Your task to perform on an android device: open sync settings in chrome Image 0: 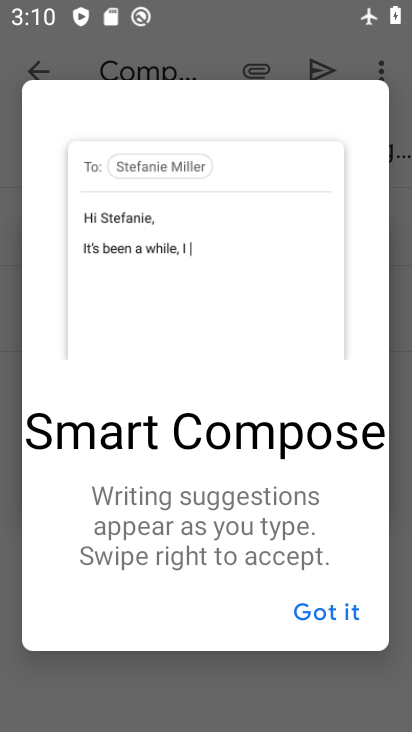
Step 0: press home button
Your task to perform on an android device: open sync settings in chrome Image 1: 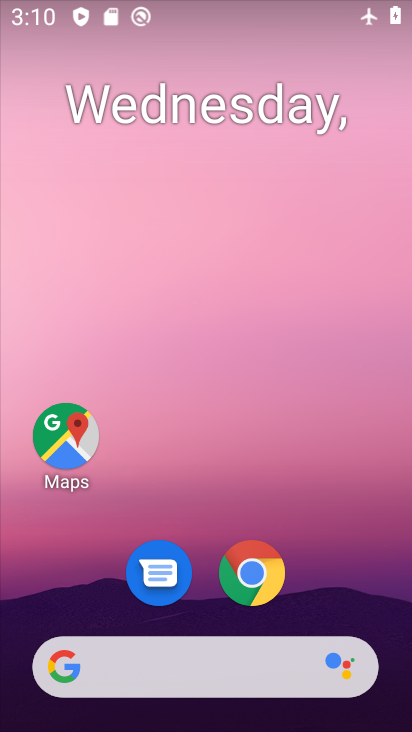
Step 1: drag from (189, 547) to (218, 299)
Your task to perform on an android device: open sync settings in chrome Image 2: 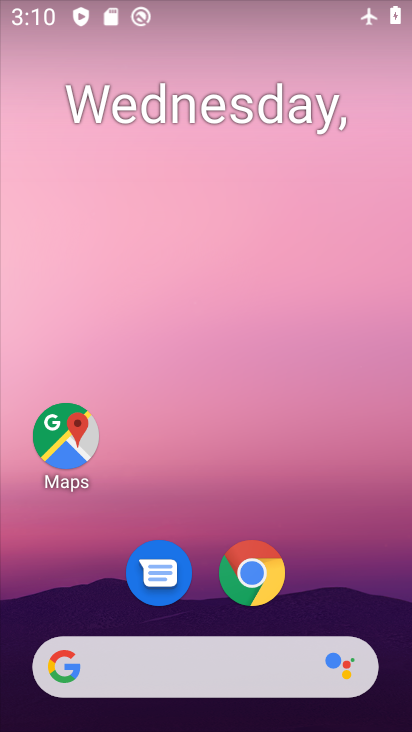
Step 2: drag from (174, 627) to (230, 287)
Your task to perform on an android device: open sync settings in chrome Image 3: 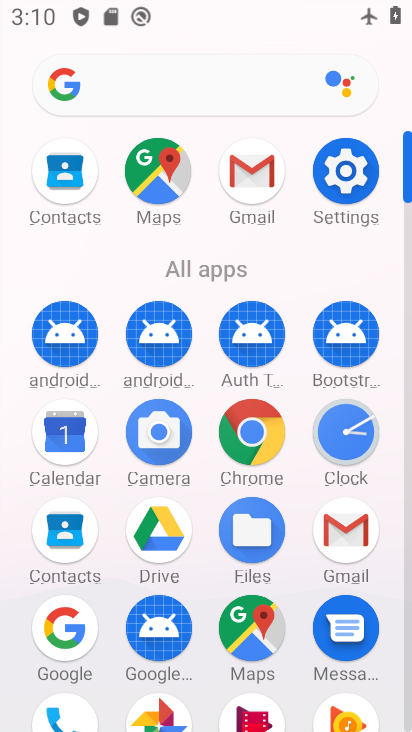
Step 3: click (235, 426)
Your task to perform on an android device: open sync settings in chrome Image 4: 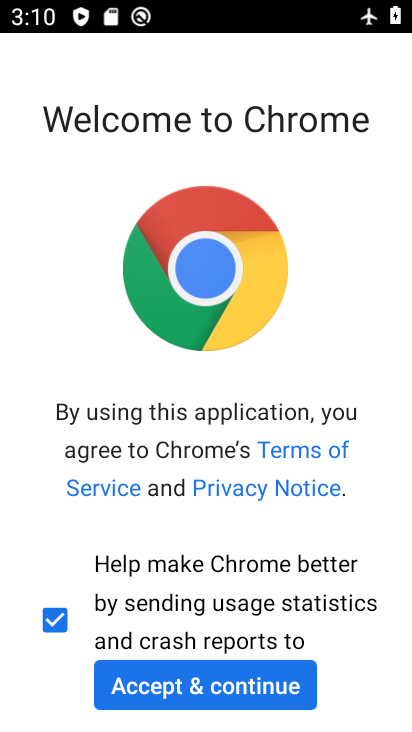
Step 4: click (254, 666)
Your task to perform on an android device: open sync settings in chrome Image 5: 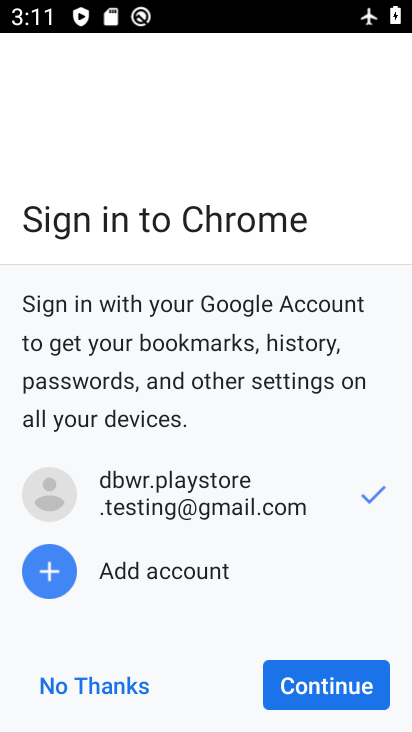
Step 5: click (281, 695)
Your task to perform on an android device: open sync settings in chrome Image 6: 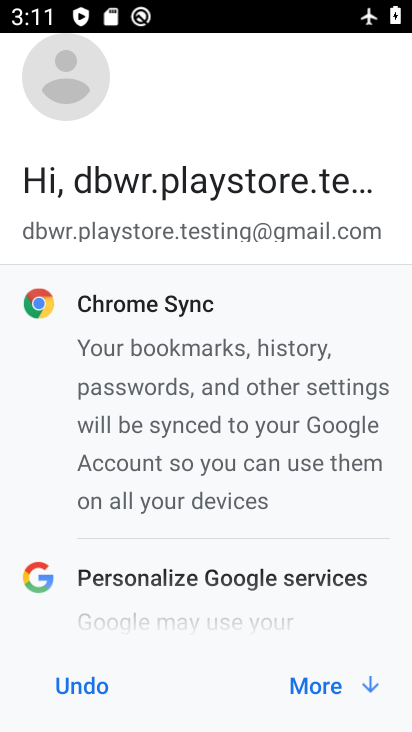
Step 6: click (281, 695)
Your task to perform on an android device: open sync settings in chrome Image 7: 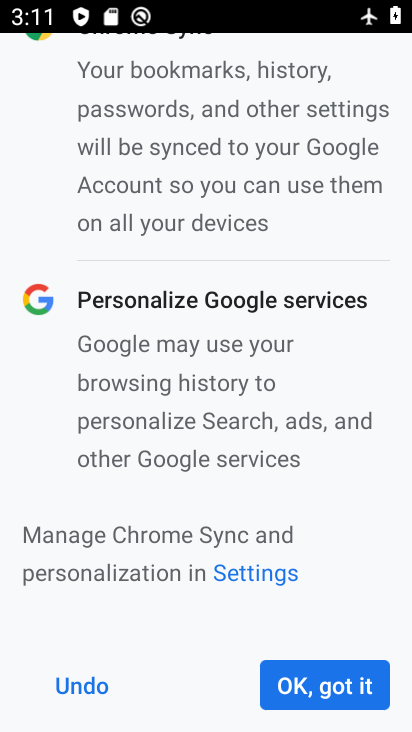
Step 7: click (281, 695)
Your task to perform on an android device: open sync settings in chrome Image 8: 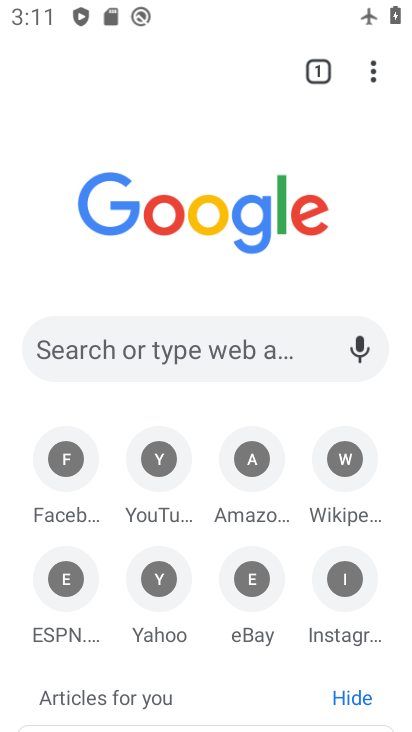
Step 8: click (369, 74)
Your task to perform on an android device: open sync settings in chrome Image 9: 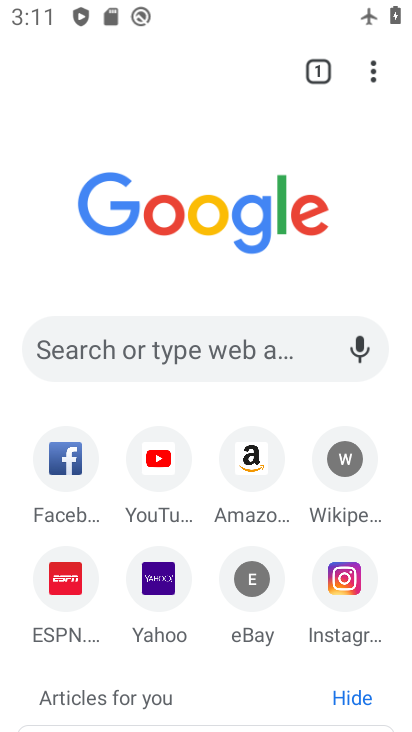
Step 9: click (375, 77)
Your task to perform on an android device: open sync settings in chrome Image 10: 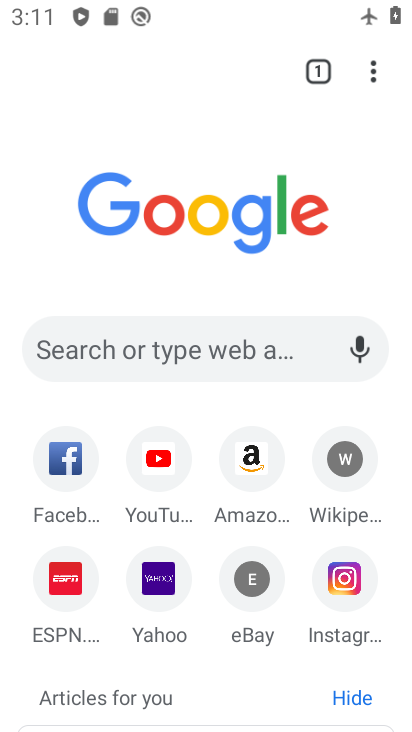
Step 10: click (375, 77)
Your task to perform on an android device: open sync settings in chrome Image 11: 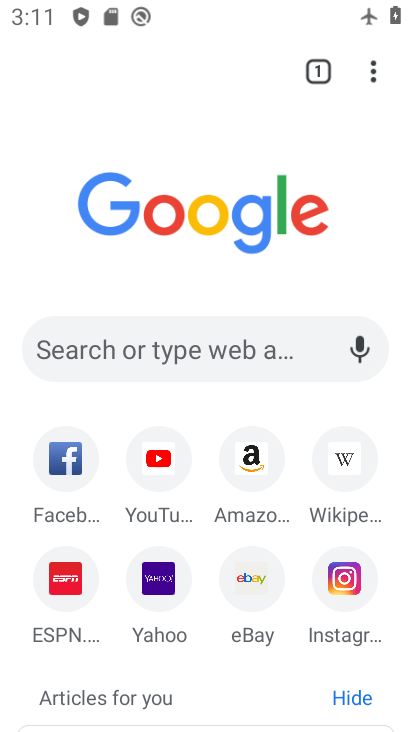
Step 11: click (378, 68)
Your task to perform on an android device: open sync settings in chrome Image 12: 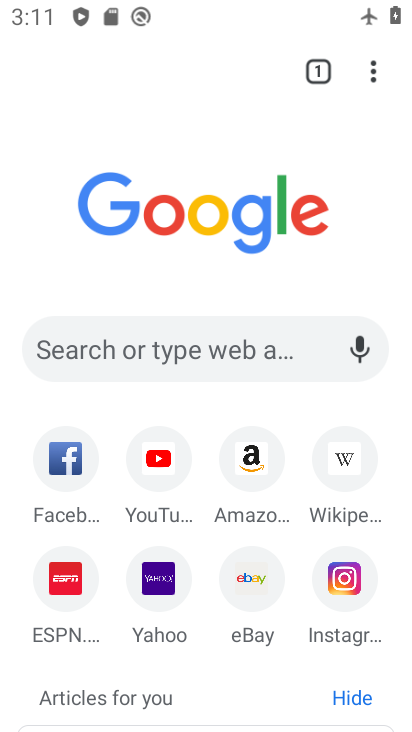
Step 12: click (364, 71)
Your task to perform on an android device: open sync settings in chrome Image 13: 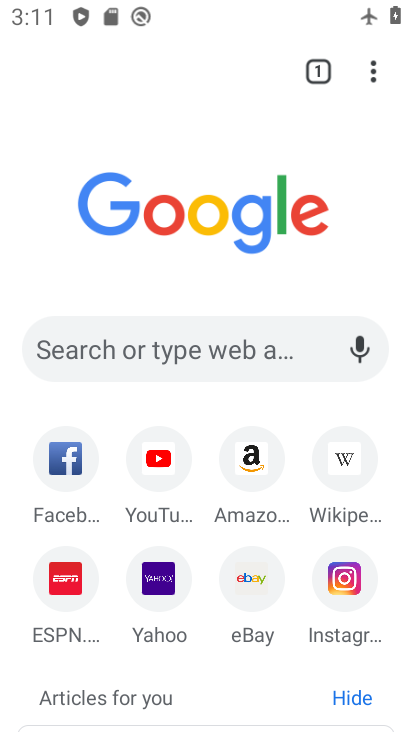
Step 13: click (369, 73)
Your task to perform on an android device: open sync settings in chrome Image 14: 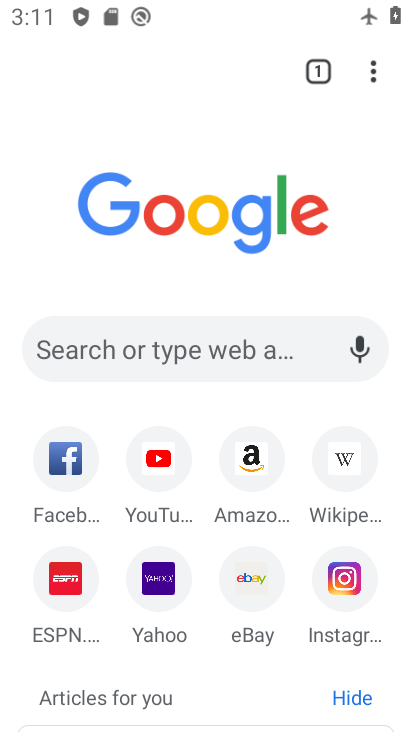
Step 14: click (375, 66)
Your task to perform on an android device: open sync settings in chrome Image 15: 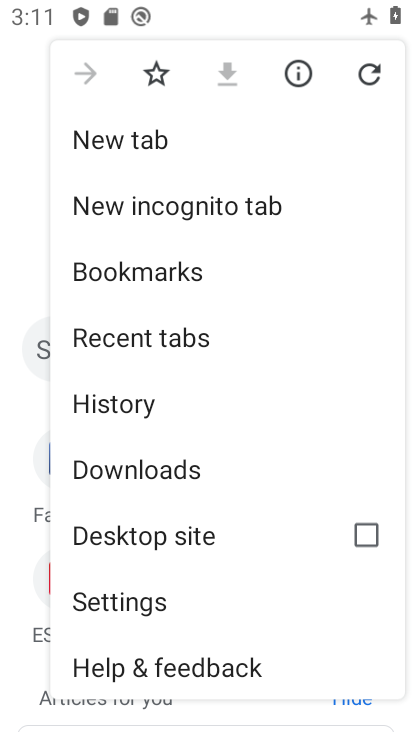
Step 15: click (124, 607)
Your task to perform on an android device: open sync settings in chrome Image 16: 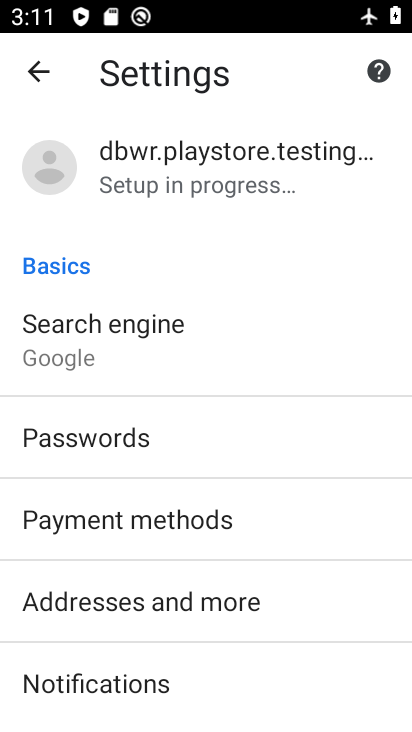
Step 16: click (156, 171)
Your task to perform on an android device: open sync settings in chrome Image 17: 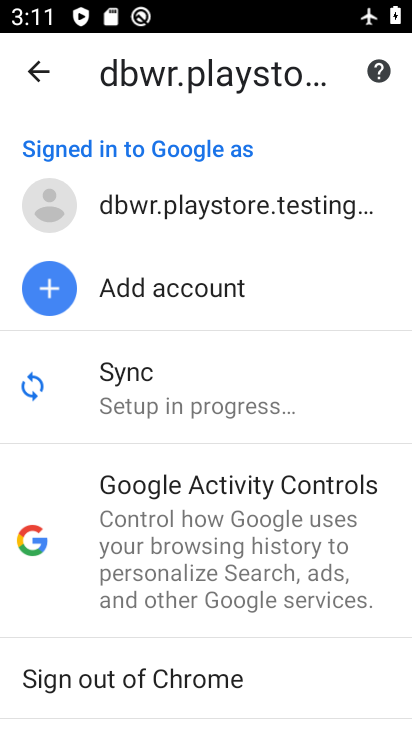
Step 17: click (135, 386)
Your task to perform on an android device: open sync settings in chrome Image 18: 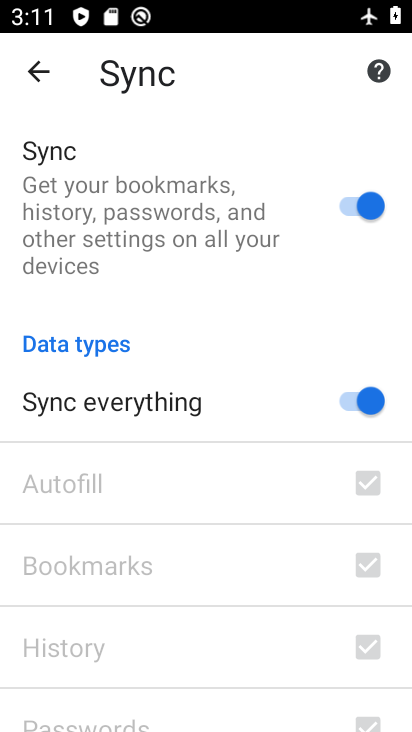
Step 18: task complete